Your task to perform on an android device: Search for Italian restaurants on Maps Image 0: 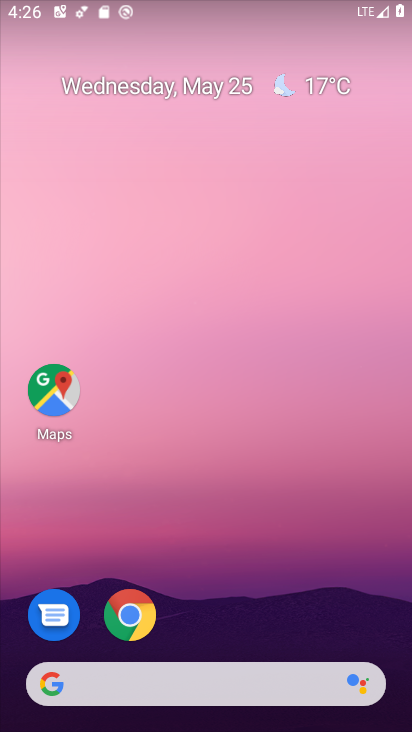
Step 0: click (69, 381)
Your task to perform on an android device: Search for Italian restaurants on Maps Image 1: 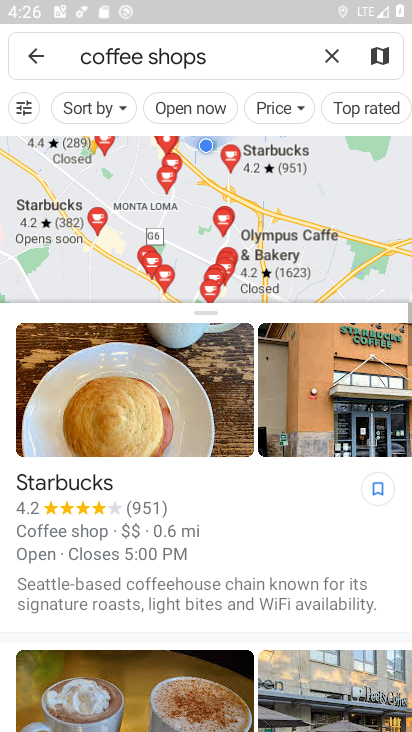
Step 1: click (333, 53)
Your task to perform on an android device: Search for Italian restaurants on Maps Image 2: 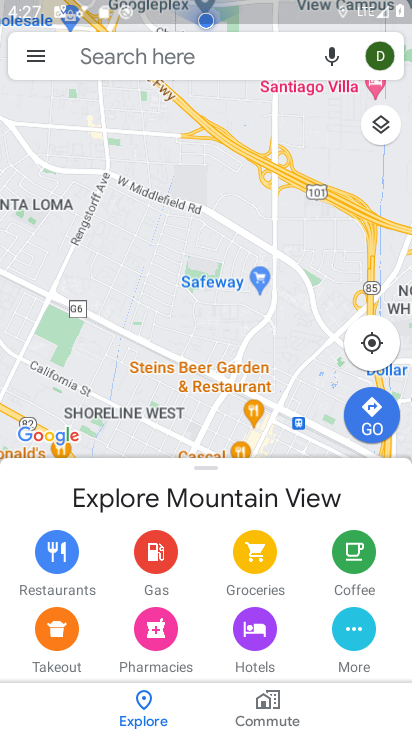
Step 2: click (172, 65)
Your task to perform on an android device: Search for Italian restaurants on Maps Image 3: 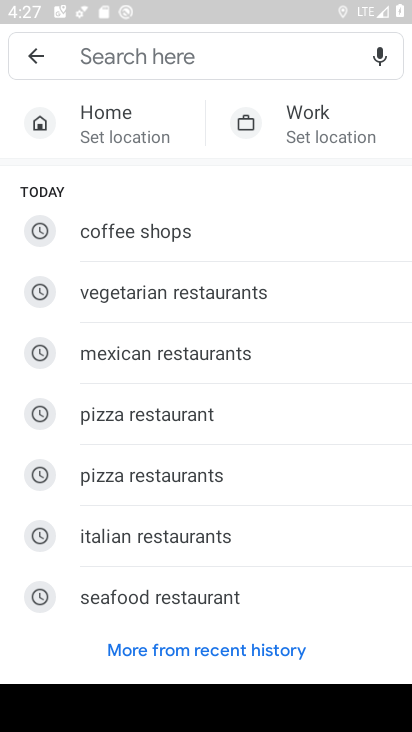
Step 3: click (154, 527)
Your task to perform on an android device: Search for Italian restaurants on Maps Image 4: 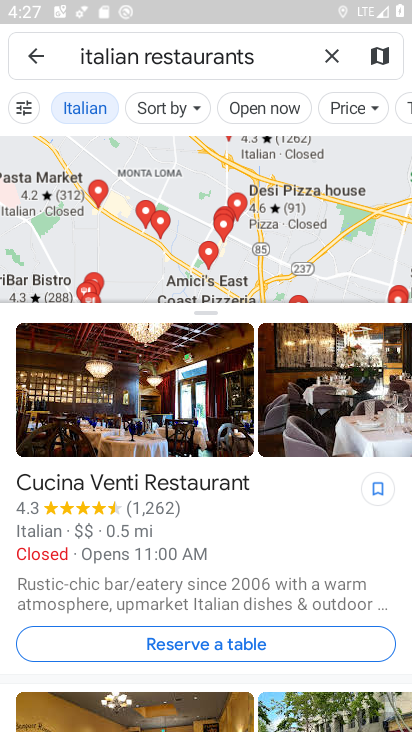
Step 4: task complete